Your task to perform on an android device: Open the Play Movies app and select the watchlist tab. Image 0: 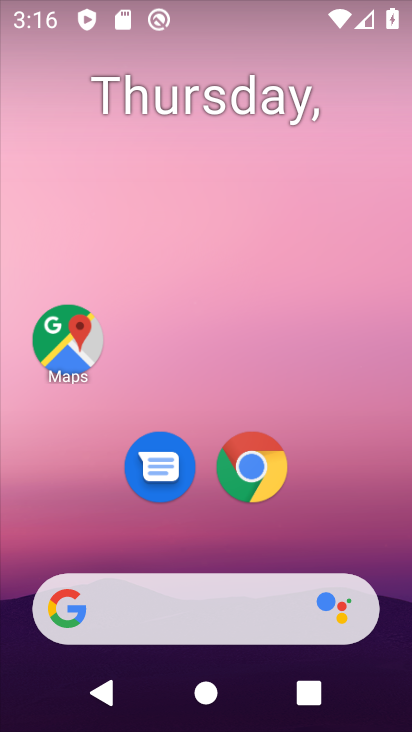
Step 0: drag from (219, 515) to (334, 9)
Your task to perform on an android device: Open the Play Movies app and select the watchlist tab. Image 1: 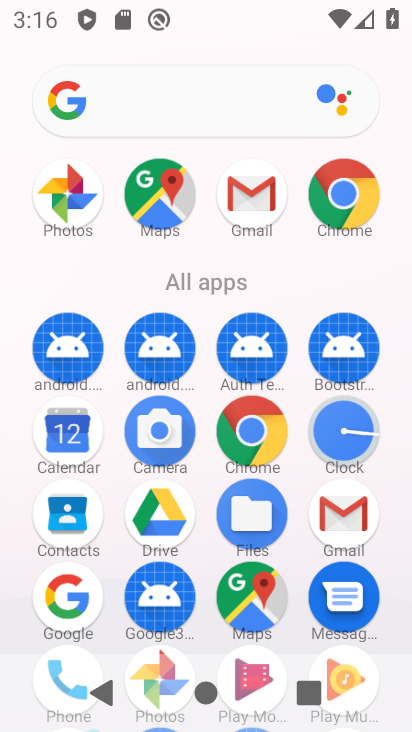
Step 1: drag from (302, 581) to (313, 286)
Your task to perform on an android device: Open the Play Movies app and select the watchlist tab. Image 2: 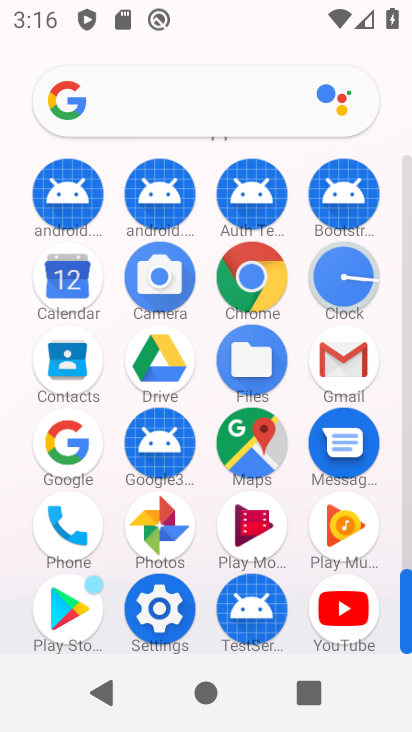
Step 2: click (256, 546)
Your task to perform on an android device: Open the Play Movies app and select the watchlist tab. Image 3: 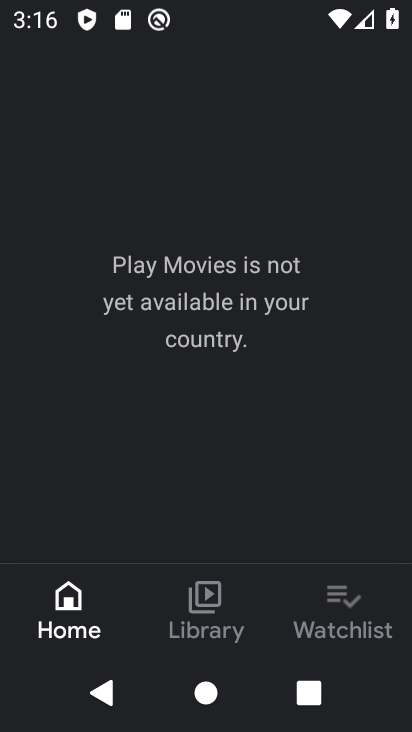
Step 3: click (346, 606)
Your task to perform on an android device: Open the Play Movies app and select the watchlist tab. Image 4: 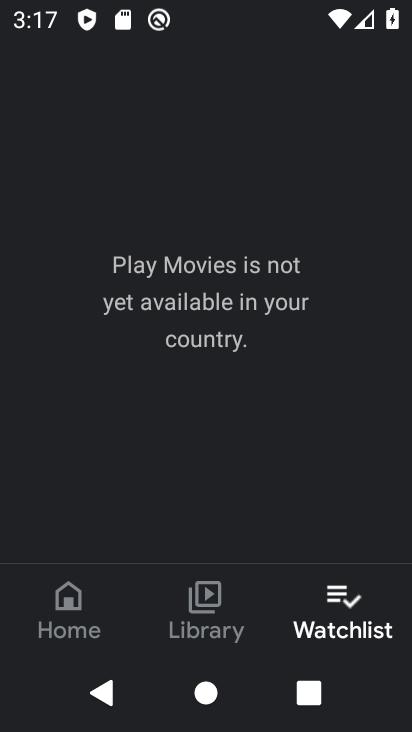
Step 4: task complete